Your task to perform on an android device: Do I have any events tomorrow? Image 0: 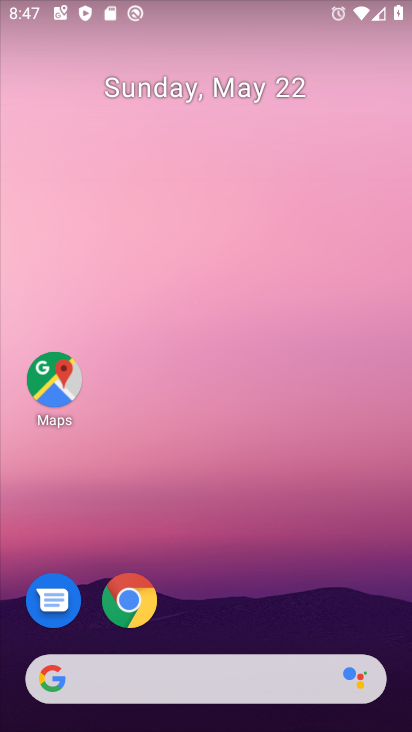
Step 0: drag from (218, 692) to (221, 370)
Your task to perform on an android device: Do I have any events tomorrow? Image 1: 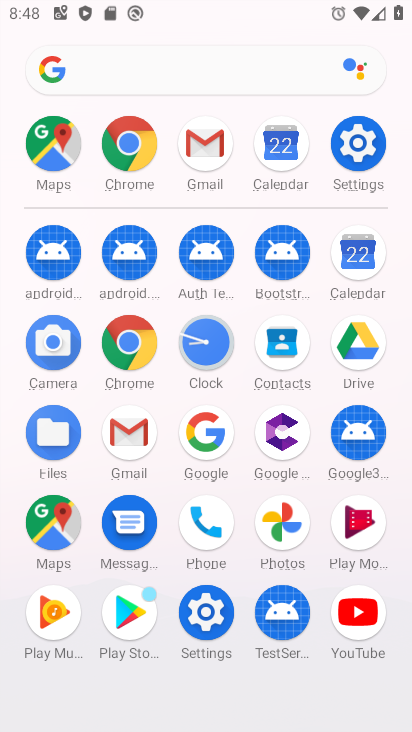
Step 1: click (361, 259)
Your task to perform on an android device: Do I have any events tomorrow? Image 2: 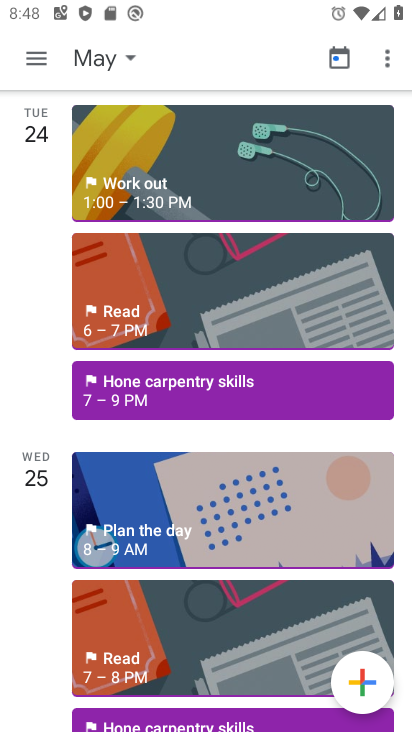
Step 2: task complete